Your task to perform on an android device: Open Google Maps Image 0: 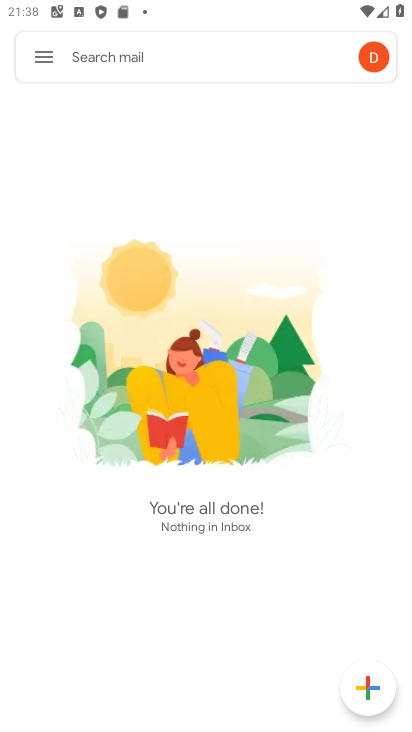
Step 0: press home button
Your task to perform on an android device: Open Google Maps Image 1: 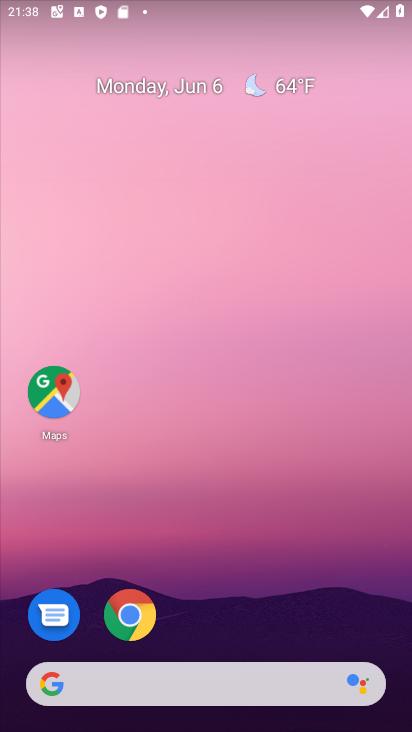
Step 1: click (55, 374)
Your task to perform on an android device: Open Google Maps Image 2: 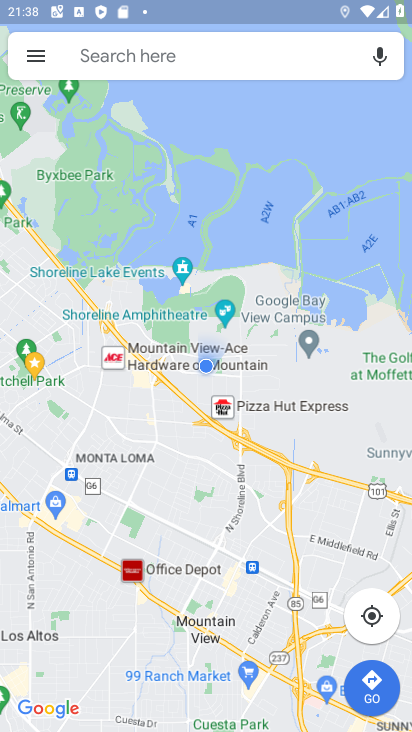
Step 2: task complete